Your task to perform on an android device: Go to battery settings Image 0: 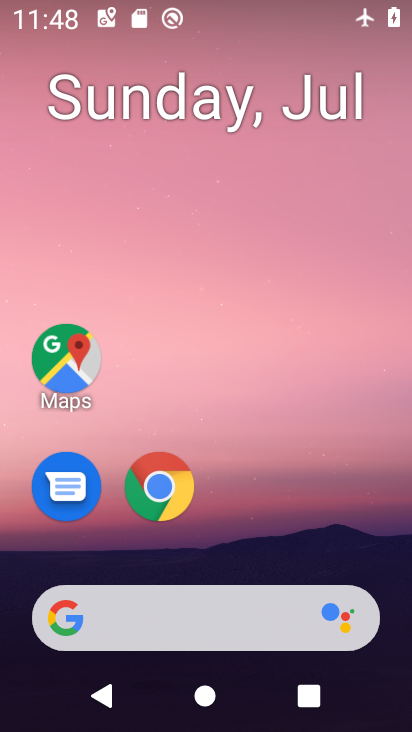
Step 0: press home button
Your task to perform on an android device: Go to battery settings Image 1: 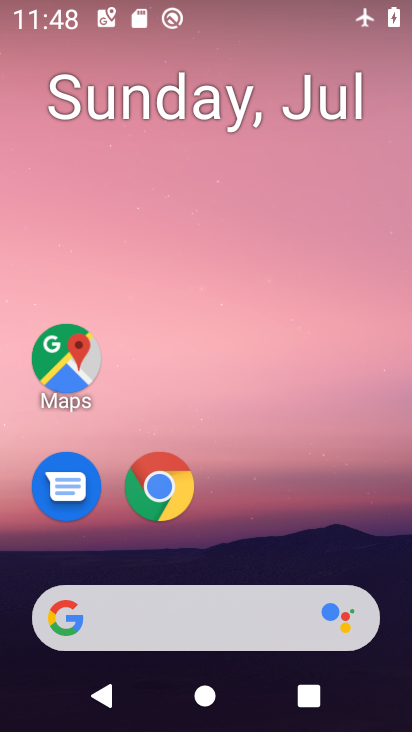
Step 1: drag from (334, 515) to (337, 105)
Your task to perform on an android device: Go to battery settings Image 2: 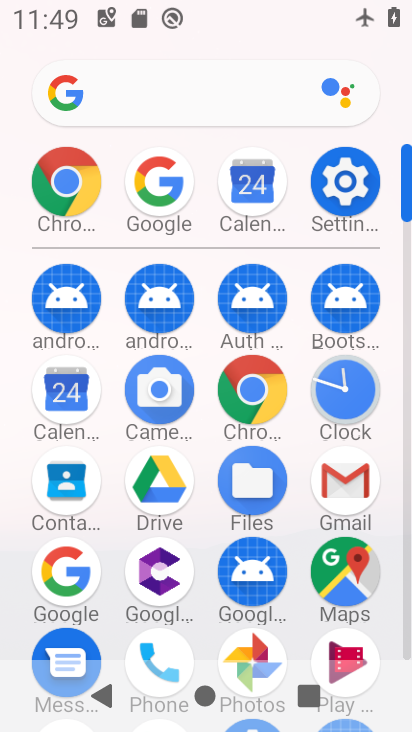
Step 2: click (352, 192)
Your task to perform on an android device: Go to battery settings Image 3: 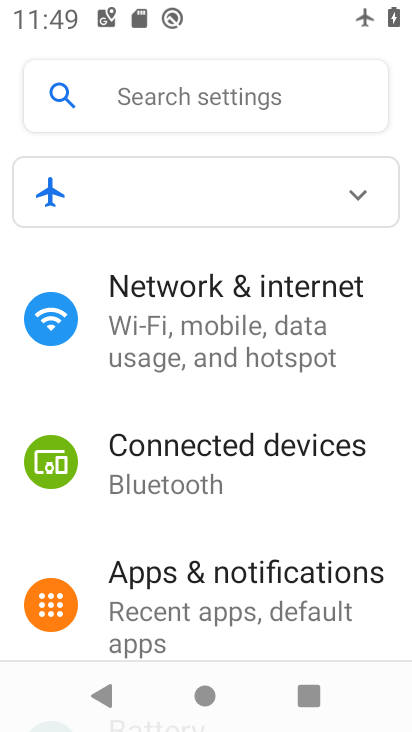
Step 3: drag from (358, 491) to (355, 300)
Your task to perform on an android device: Go to battery settings Image 4: 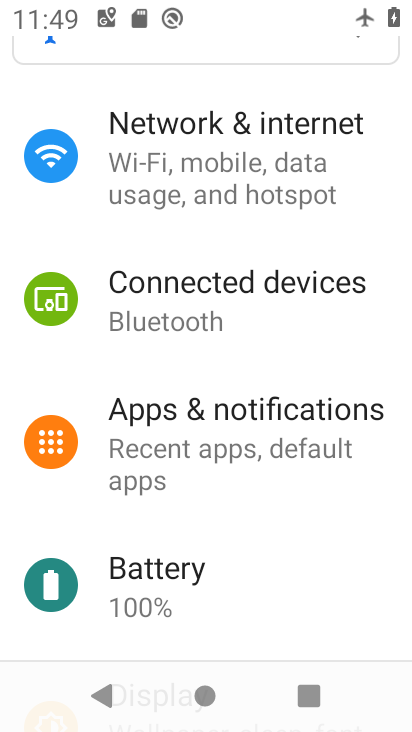
Step 4: drag from (318, 524) to (314, 354)
Your task to perform on an android device: Go to battery settings Image 5: 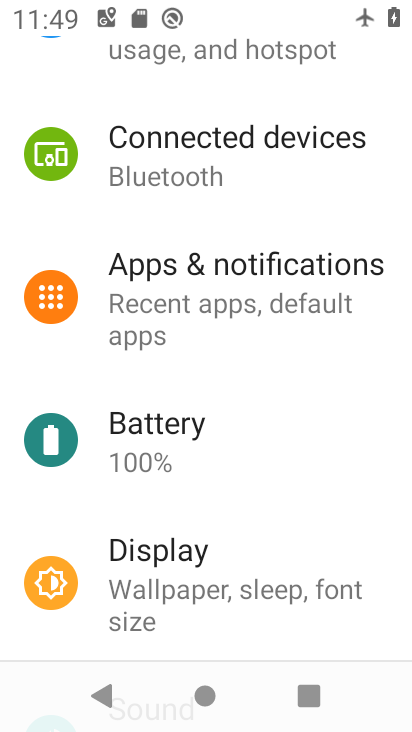
Step 5: drag from (303, 486) to (309, 362)
Your task to perform on an android device: Go to battery settings Image 6: 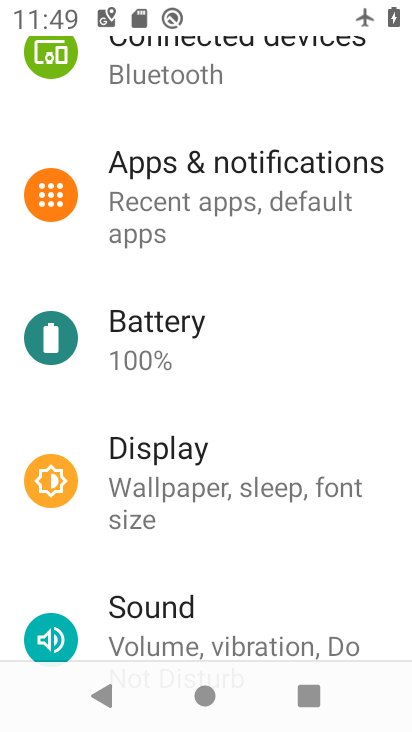
Step 6: drag from (300, 578) to (296, 428)
Your task to perform on an android device: Go to battery settings Image 7: 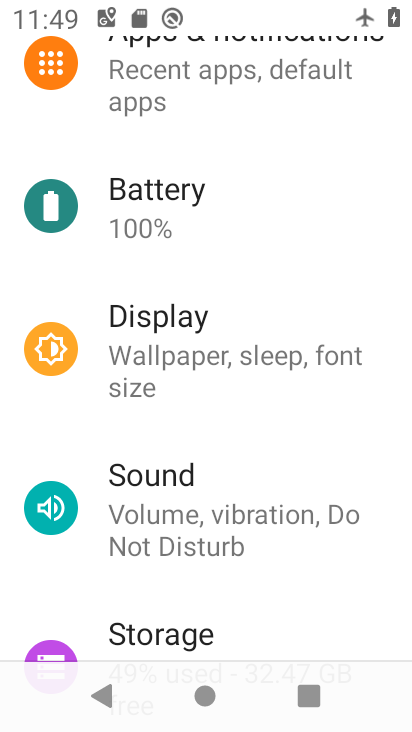
Step 7: drag from (319, 578) to (315, 411)
Your task to perform on an android device: Go to battery settings Image 8: 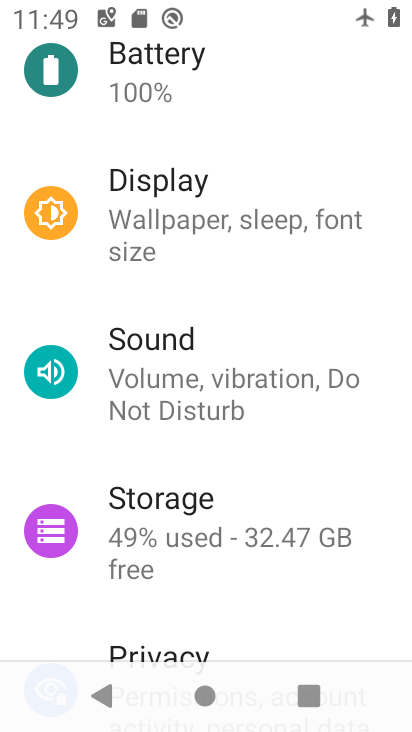
Step 8: drag from (316, 597) to (318, 491)
Your task to perform on an android device: Go to battery settings Image 9: 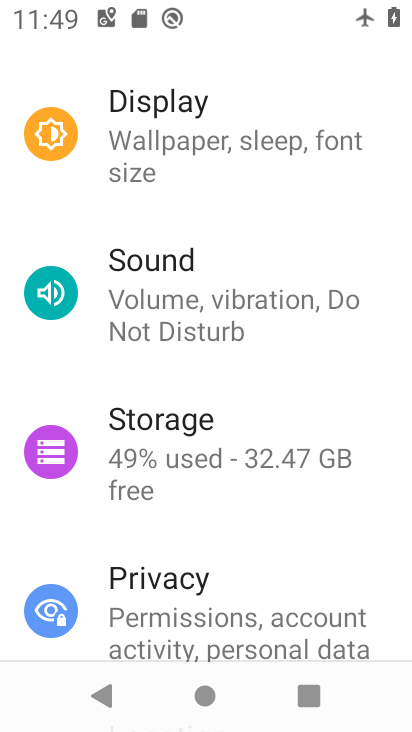
Step 9: drag from (324, 554) to (308, 432)
Your task to perform on an android device: Go to battery settings Image 10: 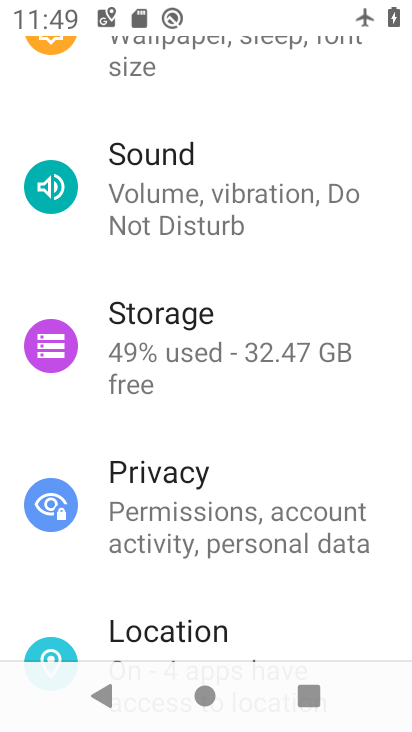
Step 10: drag from (339, 550) to (336, 438)
Your task to perform on an android device: Go to battery settings Image 11: 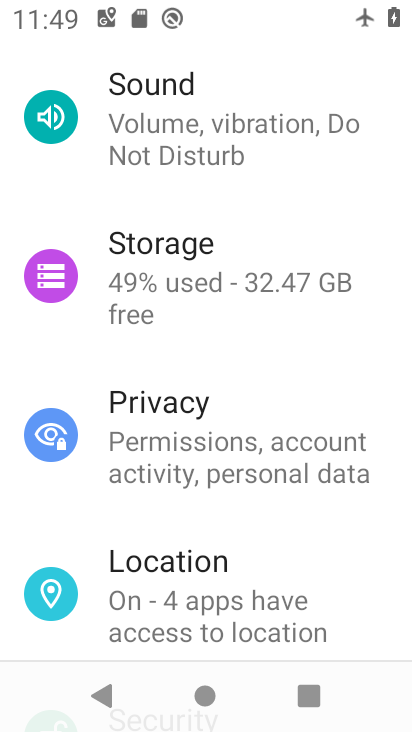
Step 11: drag from (354, 308) to (350, 452)
Your task to perform on an android device: Go to battery settings Image 12: 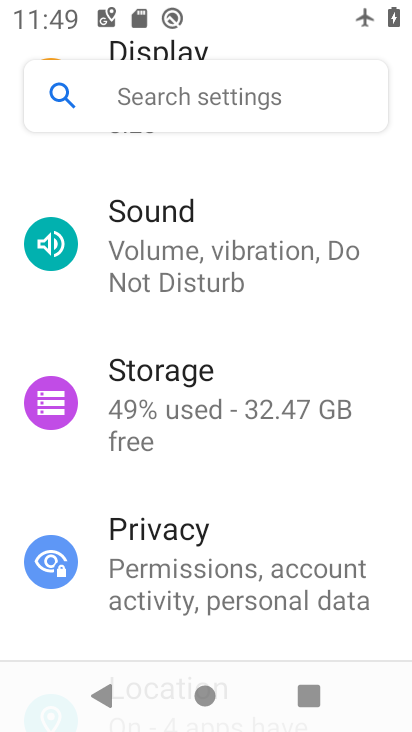
Step 12: drag from (350, 289) to (343, 429)
Your task to perform on an android device: Go to battery settings Image 13: 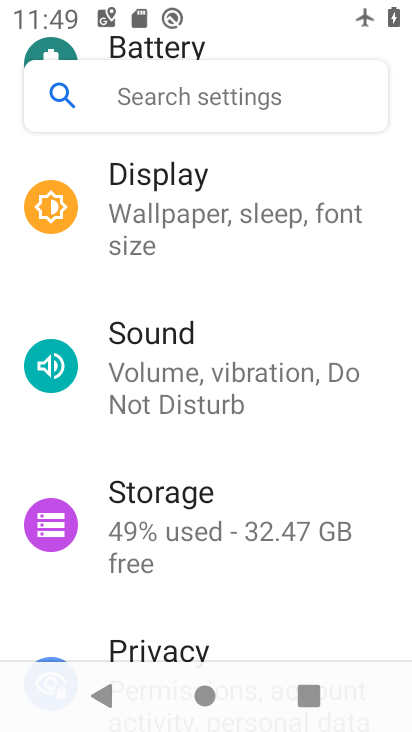
Step 13: drag from (327, 282) to (316, 458)
Your task to perform on an android device: Go to battery settings Image 14: 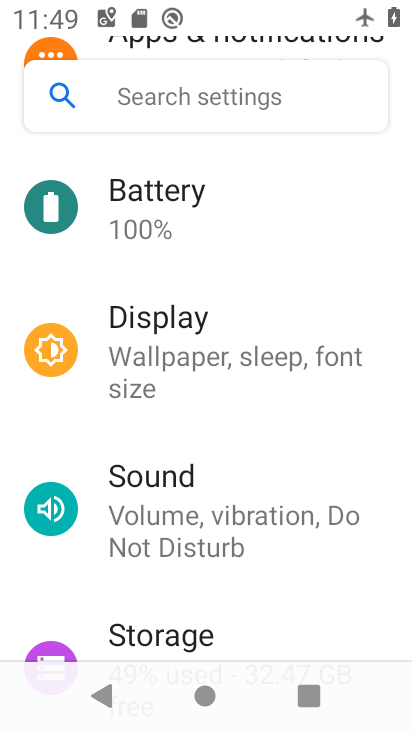
Step 14: drag from (339, 257) to (332, 368)
Your task to perform on an android device: Go to battery settings Image 15: 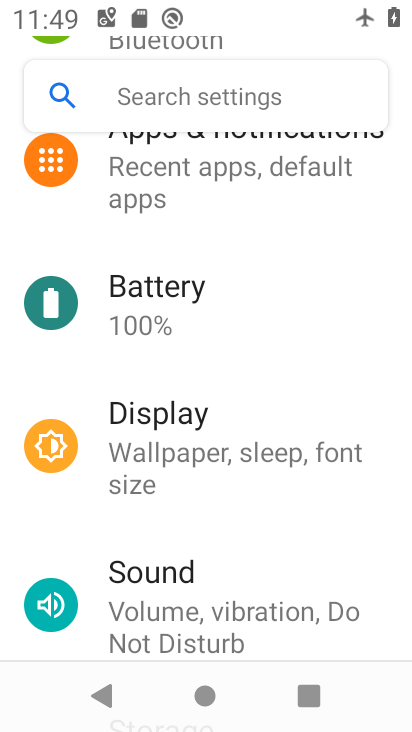
Step 15: drag from (340, 277) to (335, 390)
Your task to perform on an android device: Go to battery settings Image 16: 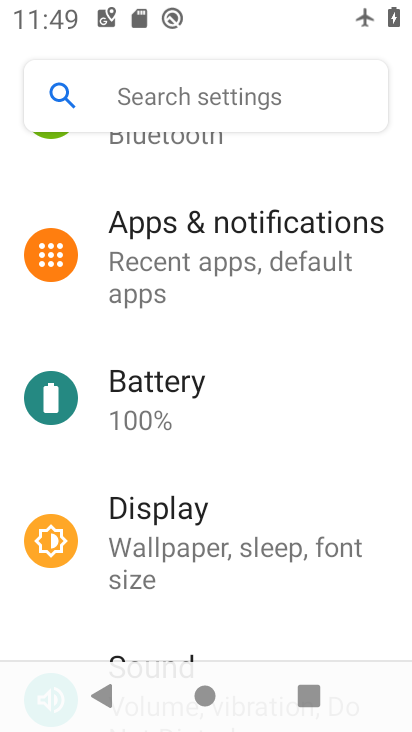
Step 16: drag from (343, 218) to (337, 397)
Your task to perform on an android device: Go to battery settings Image 17: 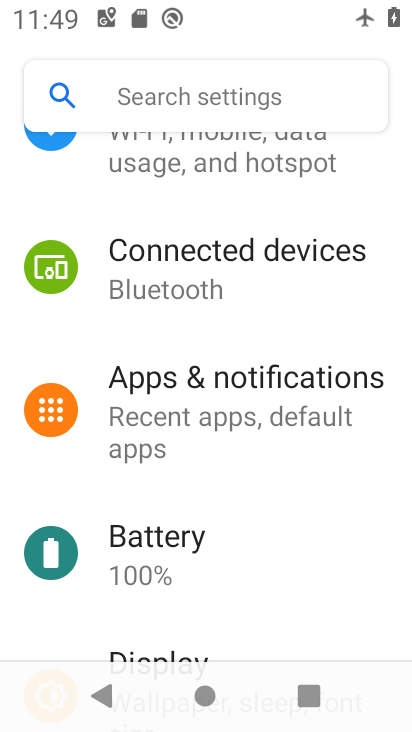
Step 17: click (250, 537)
Your task to perform on an android device: Go to battery settings Image 18: 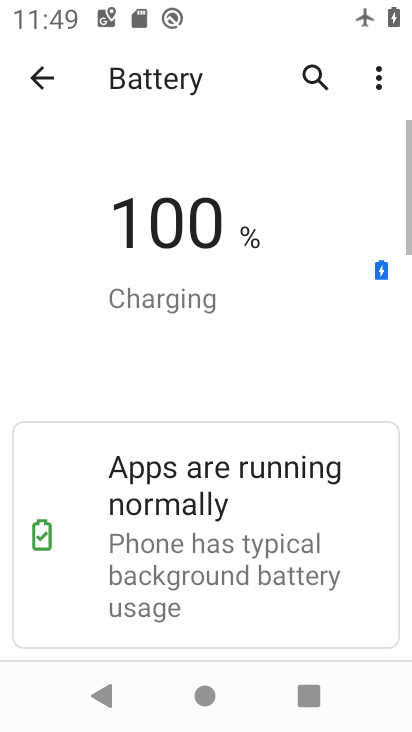
Step 18: task complete